Your task to perform on an android device: Open Youtube and go to "Your channel" Image 0: 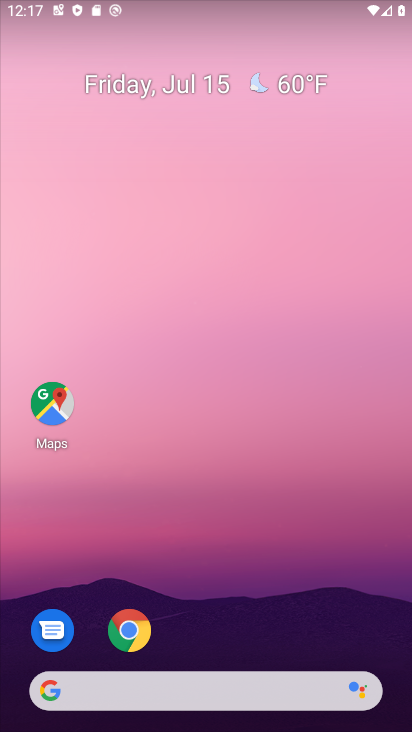
Step 0: drag from (9, 692) to (128, 327)
Your task to perform on an android device: Open Youtube and go to "Your channel" Image 1: 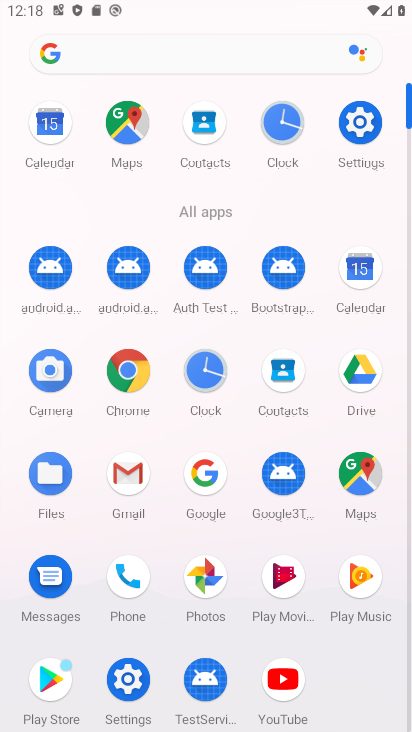
Step 1: click (265, 674)
Your task to perform on an android device: Open Youtube and go to "Your channel" Image 2: 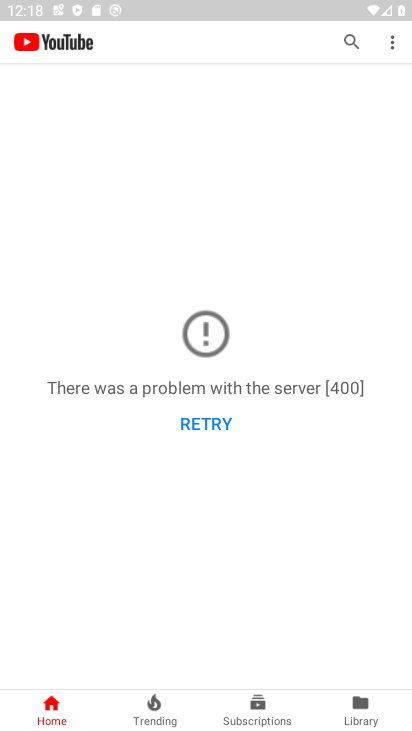
Step 2: click (155, 705)
Your task to perform on an android device: Open Youtube and go to "Your channel" Image 3: 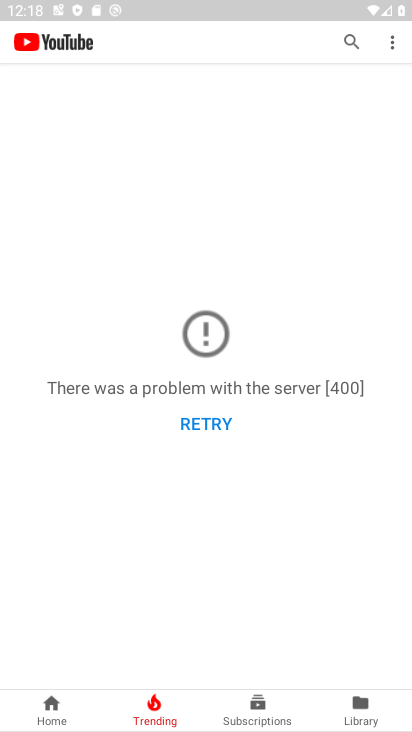
Step 3: click (367, 705)
Your task to perform on an android device: Open Youtube and go to "Your channel" Image 4: 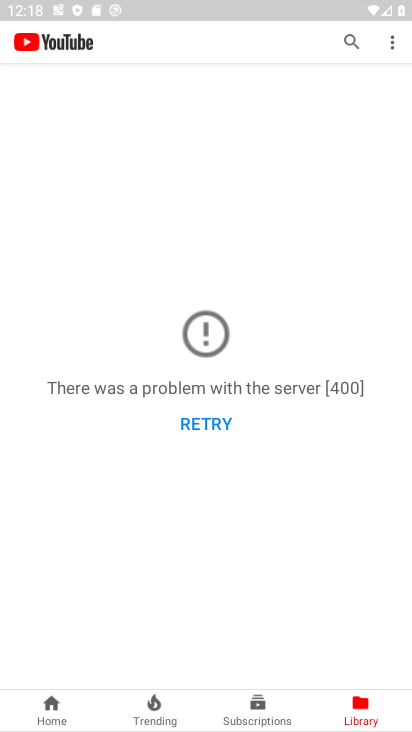
Step 4: click (394, 51)
Your task to perform on an android device: Open Youtube and go to "Your channel" Image 5: 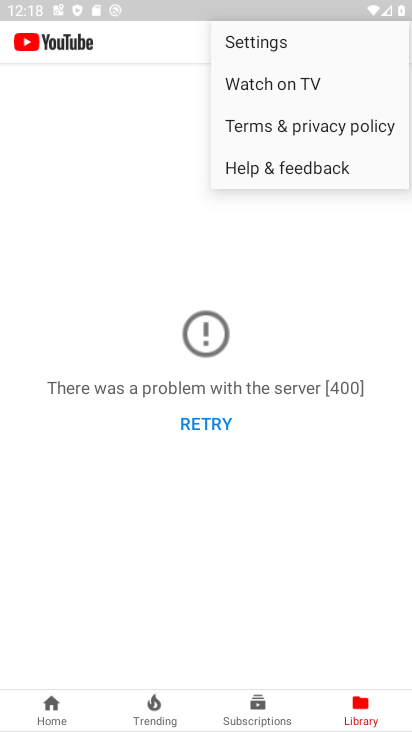
Step 5: click (278, 50)
Your task to perform on an android device: Open Youtube and go to "Your channel" Image 6: 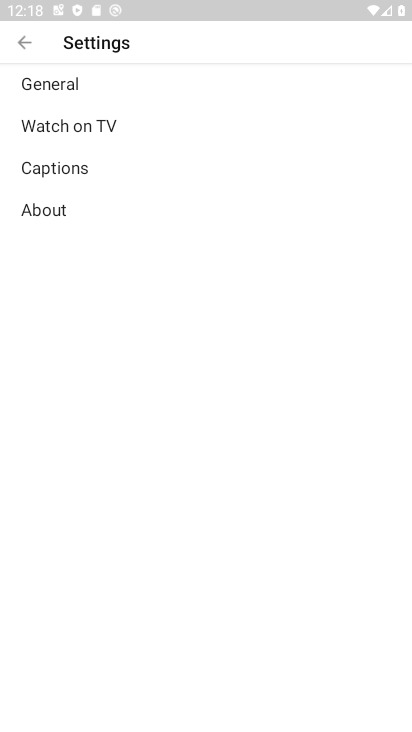
Step 6: click (13, 33)
Your task to perform on an android device: Open Youtube and go to "Your channel" Image 7: 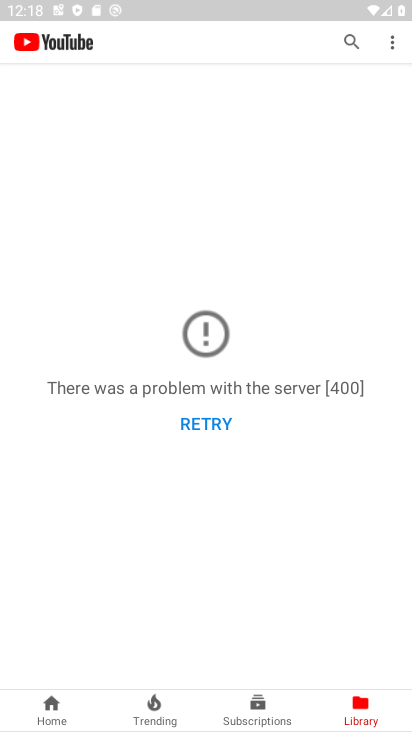
Step 7: click (13, 33)
Your task to perform on an android device: Open Youtube and go to "Your channel" Image 8: 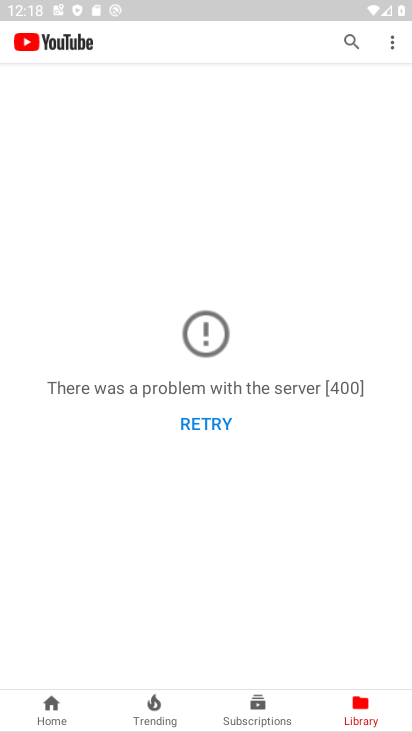
Step 8: task complete